Your task to perform on an android device: Open Wikipedia Image 0: 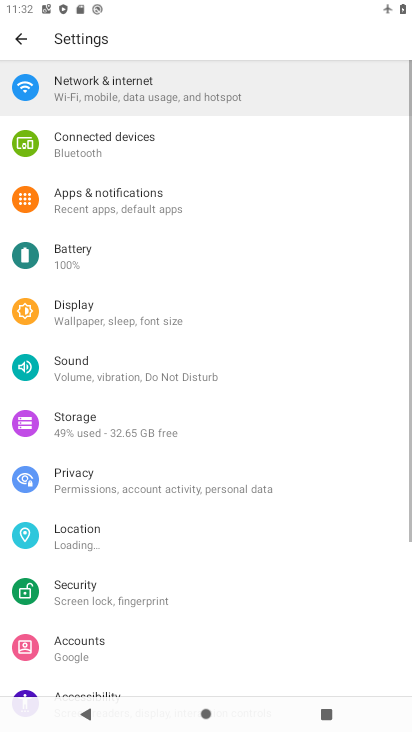
Step 0: press home button
Your task to perform on an android device: Open Wikipedia Image 1: 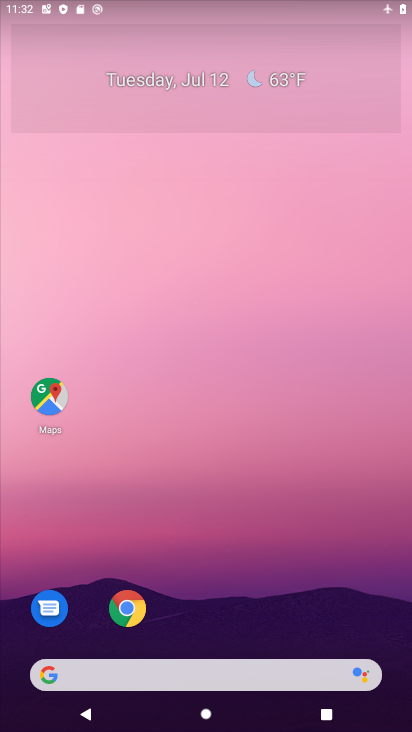
Step 1: click (127, 609)
Your task to perform on an android device: Open Wikipedia Image 2: 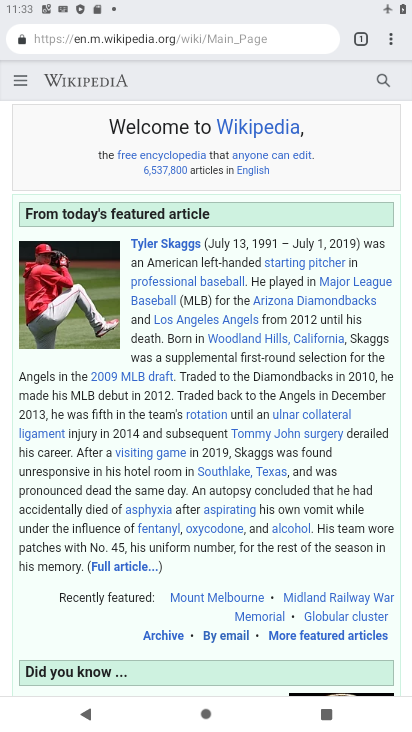
Step 2: task complete